Your task to perform on an android device: Search for vegetarian restaurants on Maps Image 0: 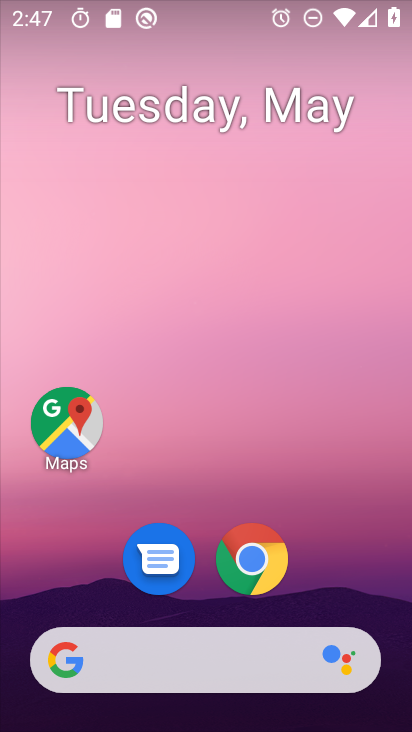
Step 0: click (92, 418)
Your task to perform on an android device: Search for vegetarian restaurants on Maps Image 1: 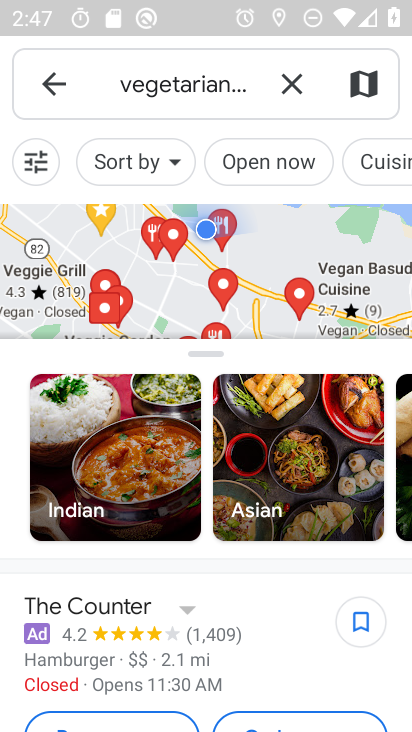
Step 1: task complete